Your task to perform on an android device: toggle notifications settings in the gmail app Image 0: 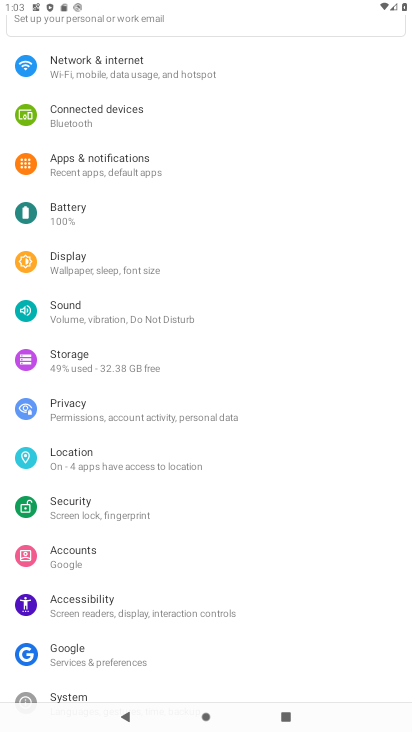
Step 0: press home button
Your task to perform on an android device: toggle notifications settings in the gmail app Image 1: 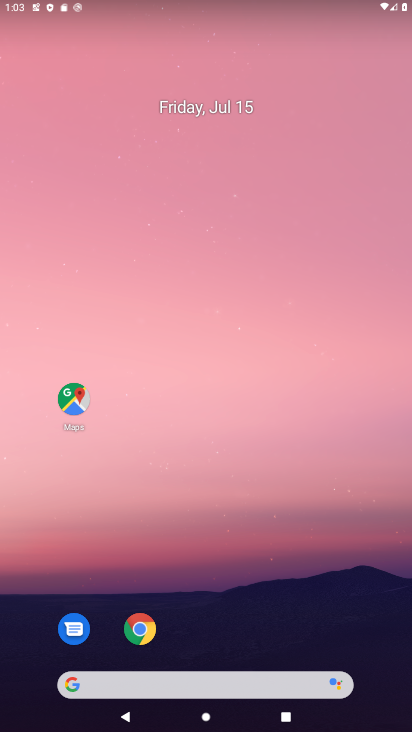
Step 1: drag from (285, 549) to (226, 154)
Your task to perform on an android device: toggle notifications settings in the gmail app Image 2: 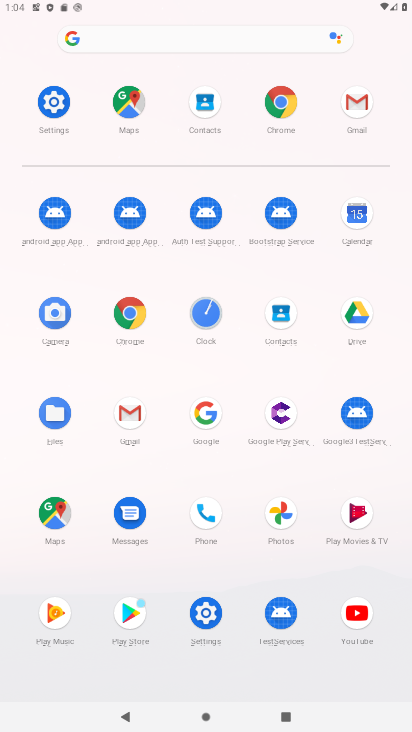
Step 2: click (349, 108)
Your task to perform on an android device: toggle notifications settings in the gmail app Image 3: 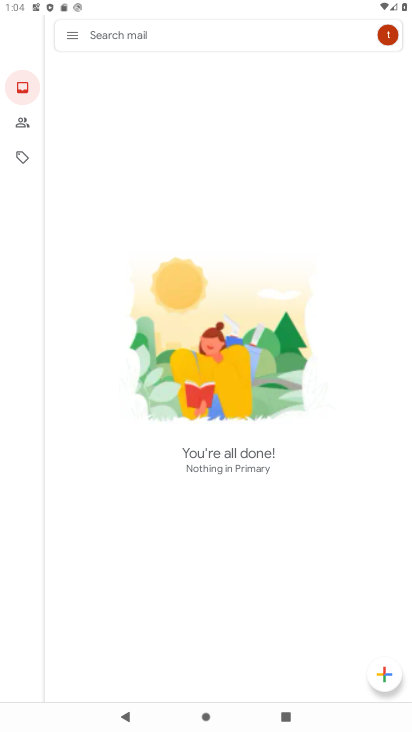
Step 3: click (79, 26)
Your task to perform on an android device: toggle notifications settings in the gmail app Image 4: 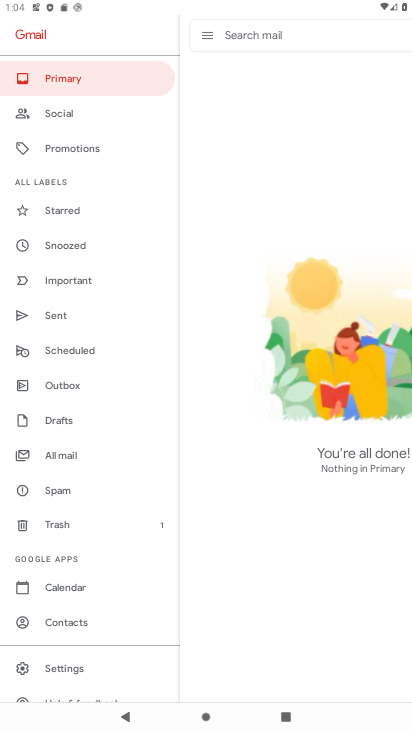
Step 4: click (55, 671)
Your task to perform on an android device: toggle notifications settings in the gmail app Image 5: 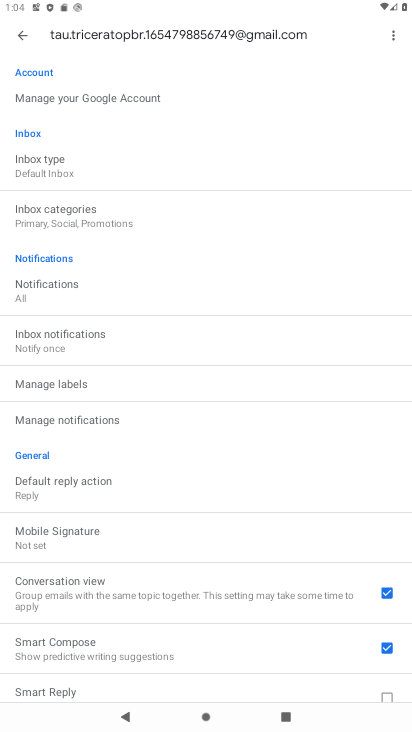
Step 5: click (70, 420)
Your task to perform on an android device: toggle notifications settings in the gmail app Image 6: 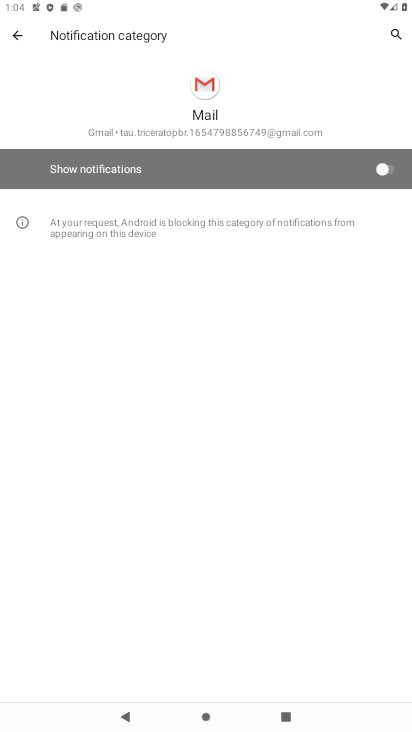
Step 6: click (386, 166)
Your task to perform on an android device: toggle notifications settings in the gmail app Image 7: 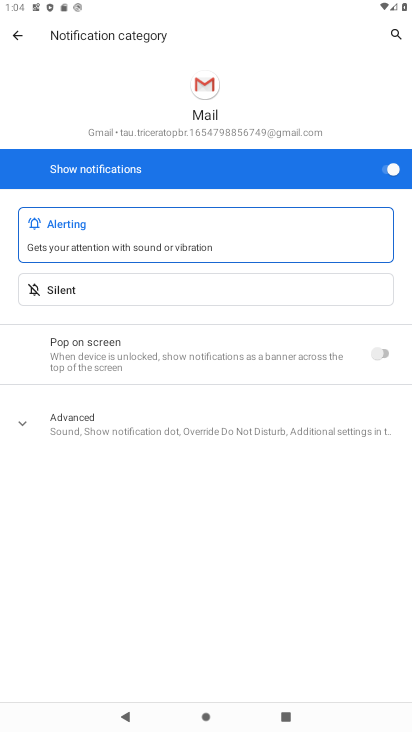
Step 7: task complete